Your task to perform on an android device: Set the phone to "Do not disturb". Image 0: 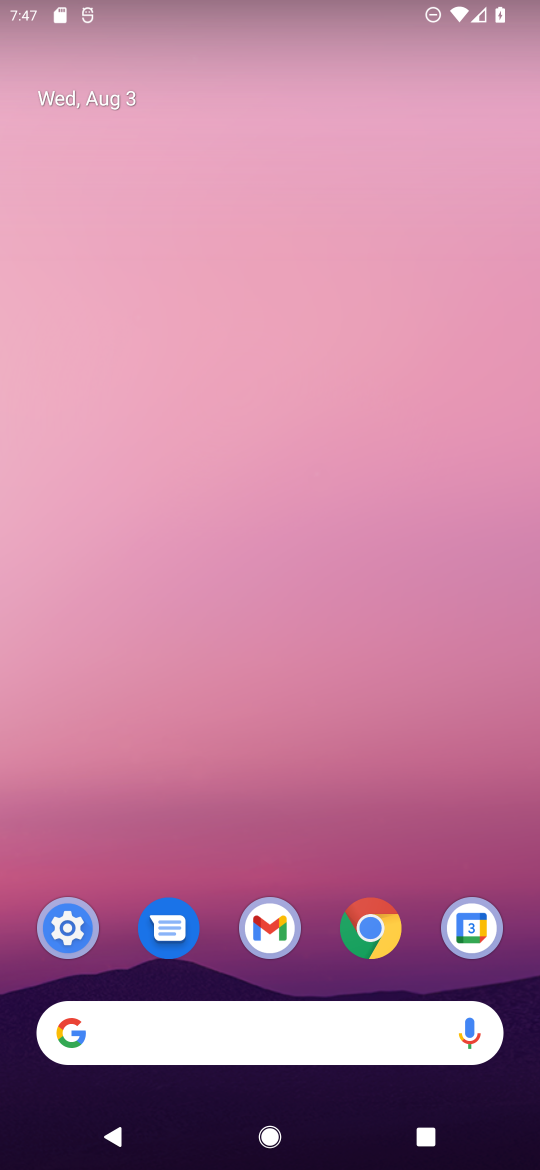
Step 0: click (76, 928)
Your task to perform on an android device: Set the phone to "Do not disturb". Image 1: 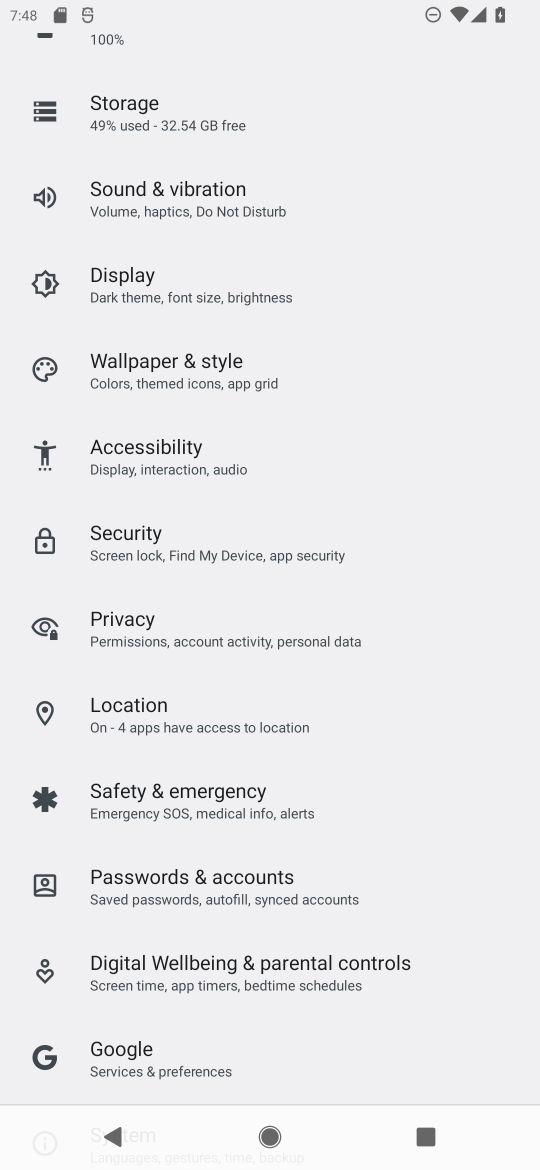
Step 1: drag from (279, 271) to (263, 806)
Your task to perform on an android device: Set the phone to "Do not disturb". Image 2: 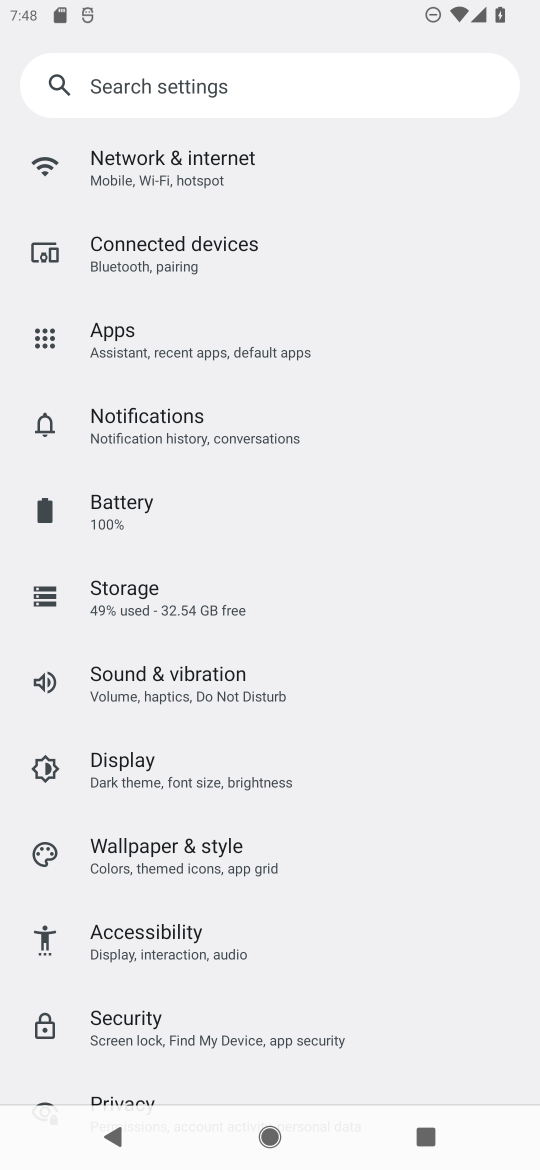
Step 2: click (274, 679)
Your task to perform on an android device: Set the phone to "Do not disturb". Image 3: 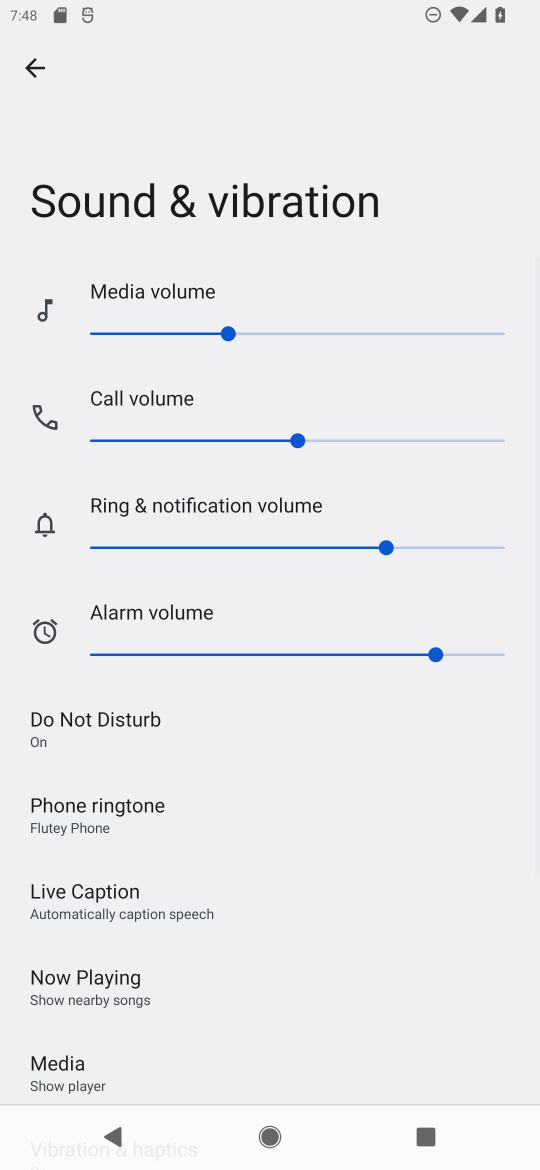
Step 3: click (267, 708)
Your task to perform on an android device: Set the phone to "Do not disturb". Image 4: 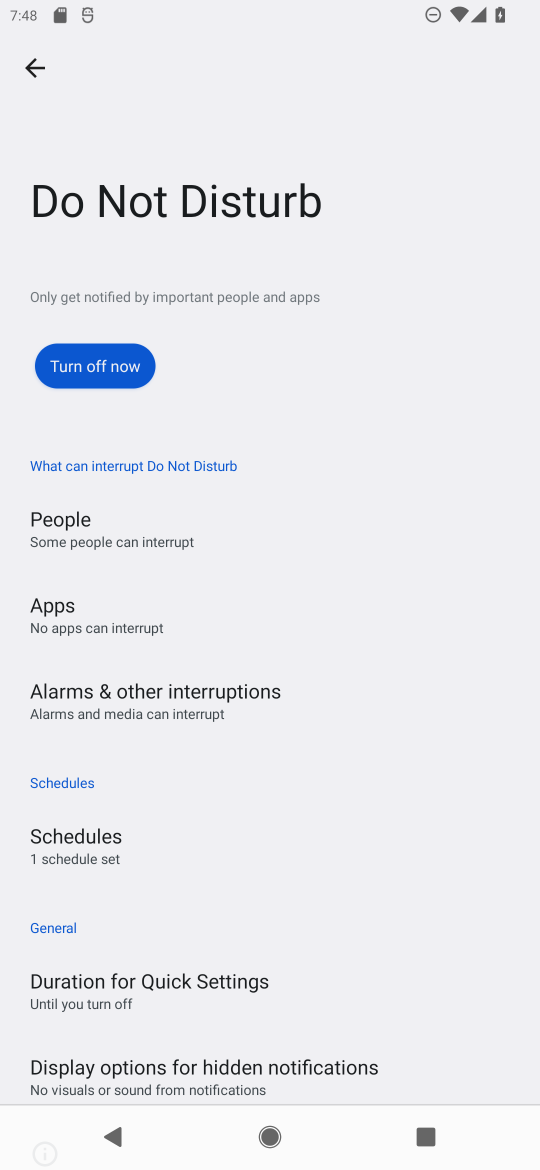
Step 4: task complete